Your task to perform on an android device: turn off smart reply in the gmail app Image 0: 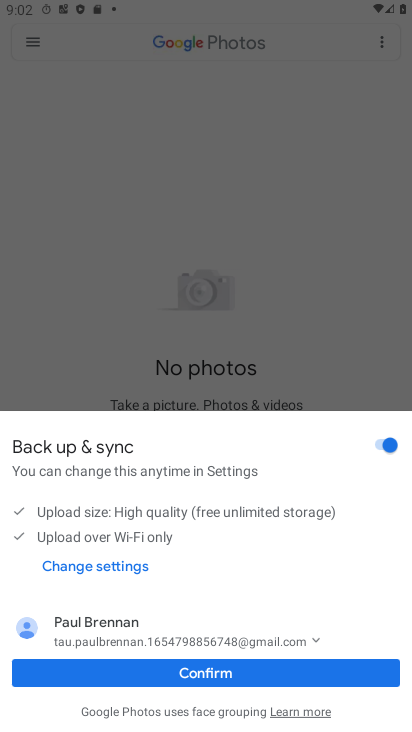
Step 0: press back button
Your task to perform on an android device: turn off smart reply in the gmail app Image 1: 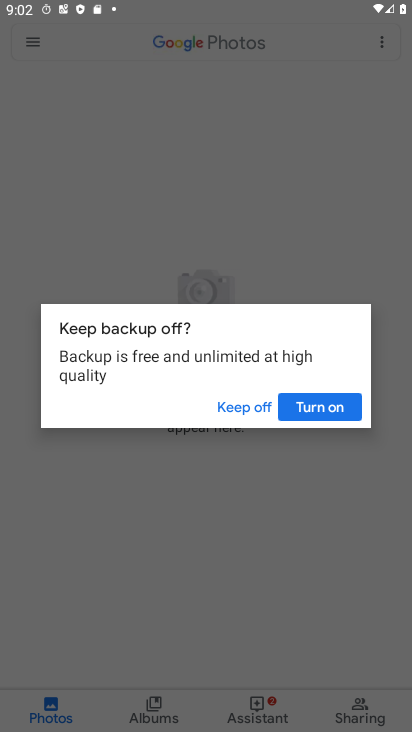
Step 1: click (89, 182)
Your task to perform on an android device: turn off smart reply in the gmail app Image 2: 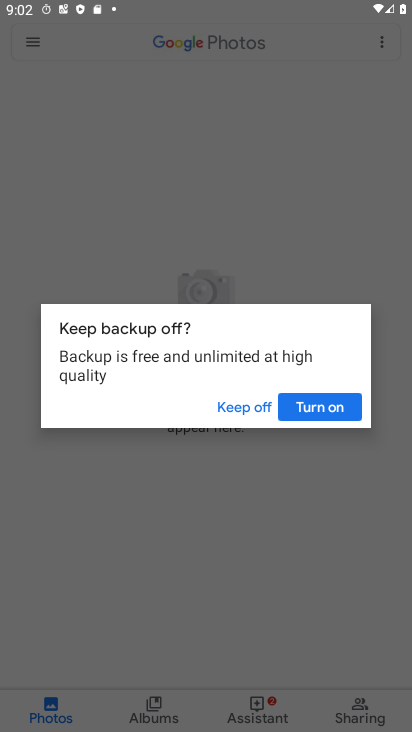
Step 2: click (89, 182)
Your task to perform on an android device: turn off smart reply in the gmail app Image 3: 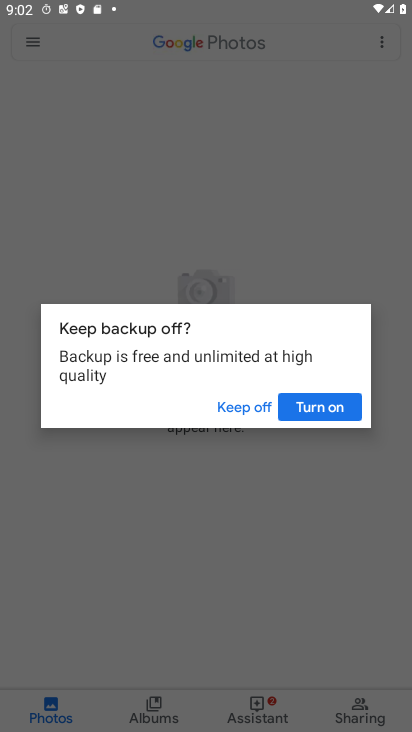
Step 3: click (89, 182)
Your task to perform on an android device: turn off smart reply in the gmail app Image 4: 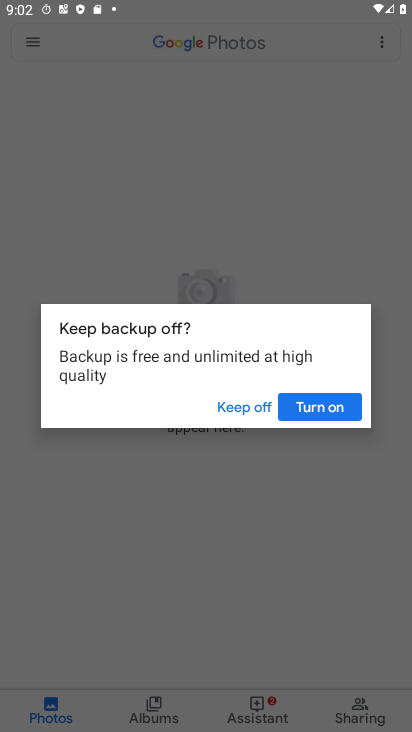
Step 4: click (92, 177)
Your task to perform on an android device: turn off smart reply in the gmail app Image 5: 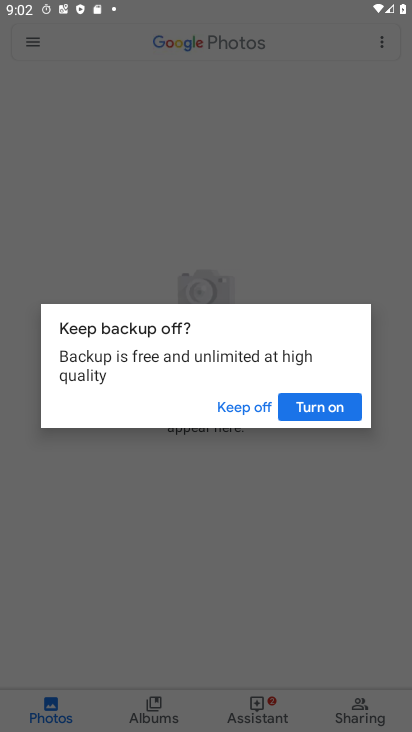
Step 5: click (92, 177)
Your task to perform on an android device: turn off smart reply in the gmail app Image 6: 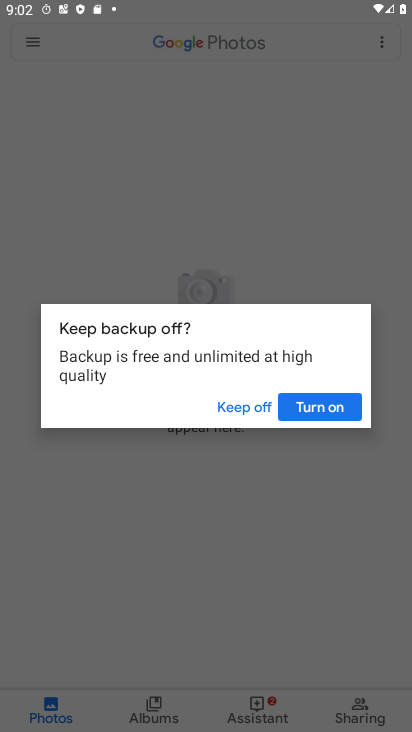
Step 6: click (156, 167)
Your task to perform on an android device: turn off smart reply in the gmail app Image 7: 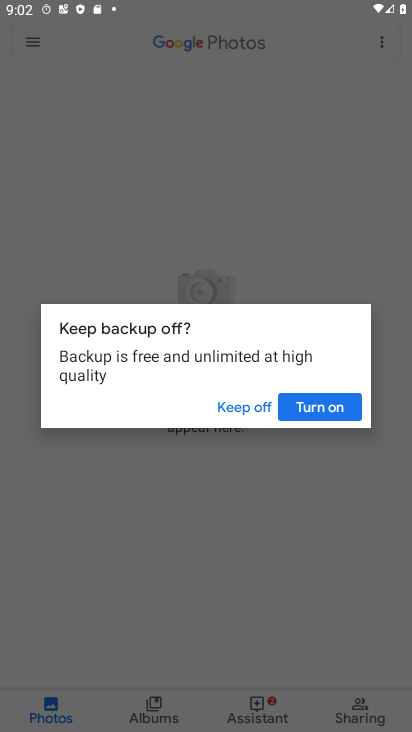
Step 7: click (136, 171)
Your task to perform on an android device: turn off smart reply in the gmail app Image 8: 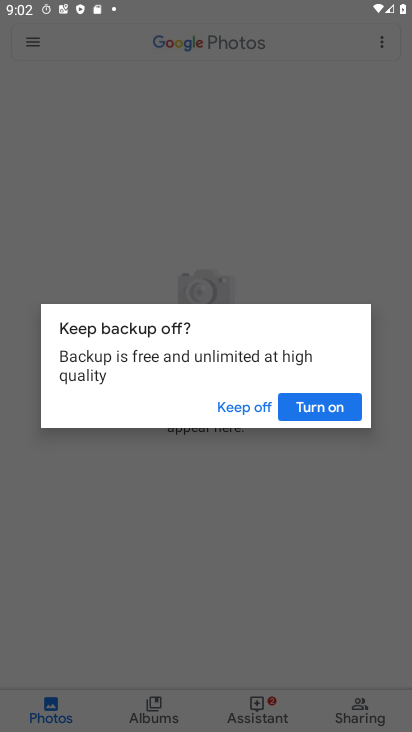
Step 8: click (237, 401)
Your task to perform on an android device: turn off smart reply in the gmail app Image 9: 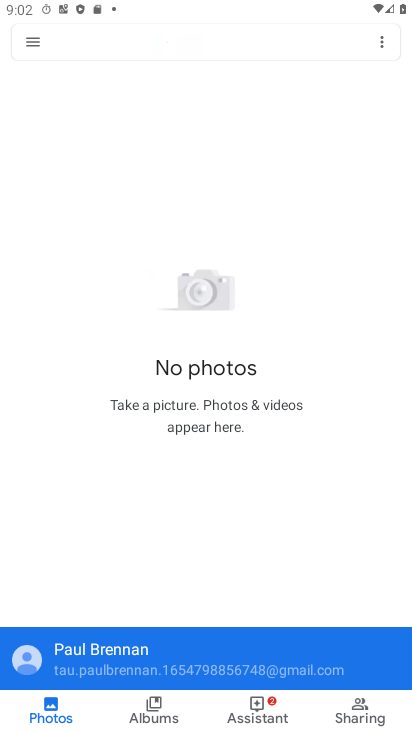
Step 9: click (31, 41)
Your task to perform on an android device: turn off smart reply in the gmail app Image 10: 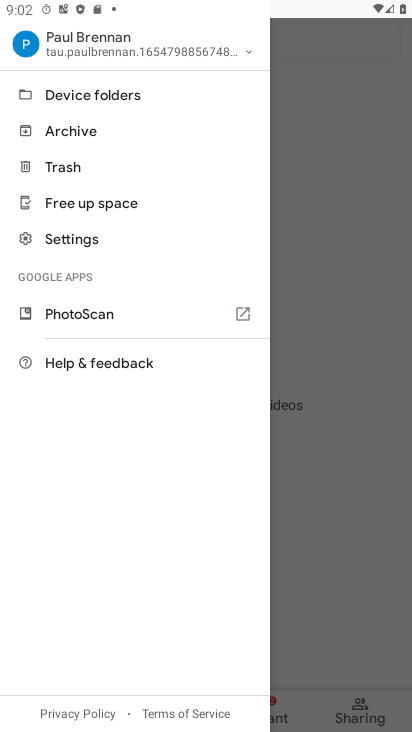
Step 10: click (76, 238)
Your task to perform on an android device: turn off smart reply in the gmail app Image 11: 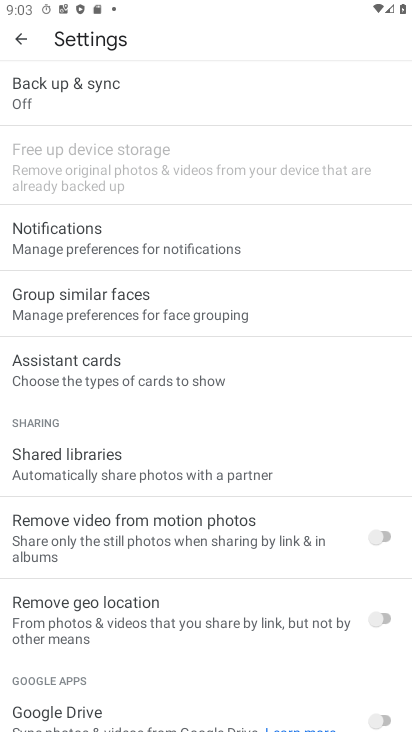
Step 11: click (70, 213)
Your task to perform on an android device: turn off smart reply in the gmail app Image 12: 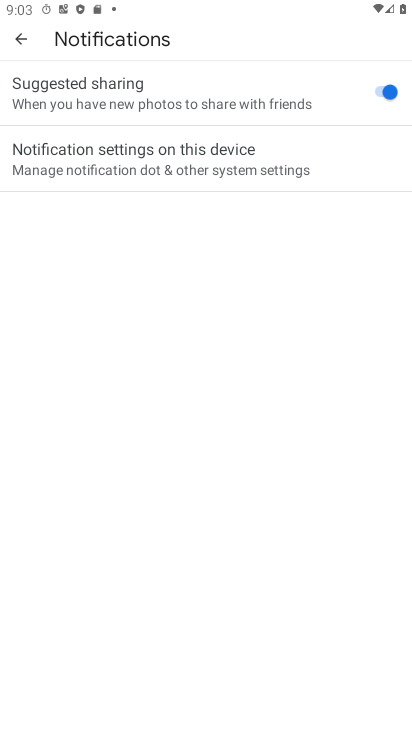
Step 12: click (21, 50)
Your task to perform on an android device: turn off smart reply in the gmail app Image 13: 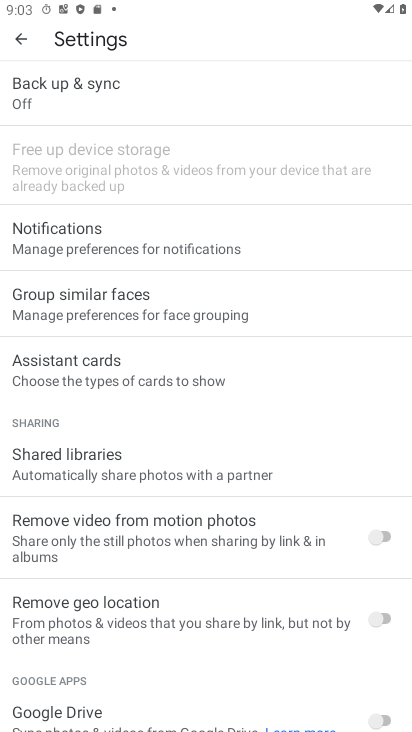
Step 13: click (19, 38)
Your task to perform on an android device: turn off smart reply in the gmail app Image 14: 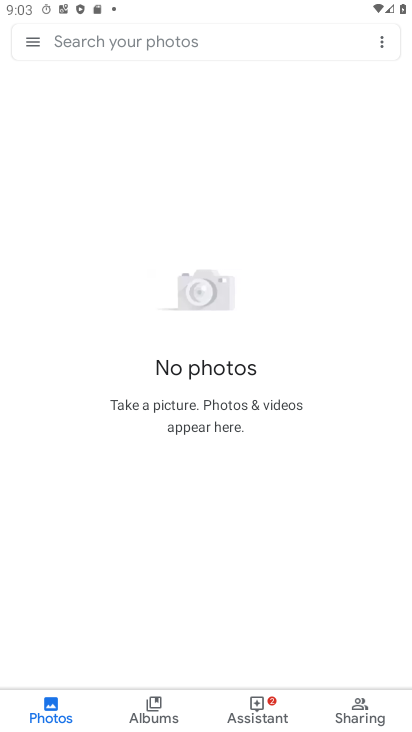
Step 14: press back button
Your task to perform on an android device: turn off smart reply in the gmail app Image 15: 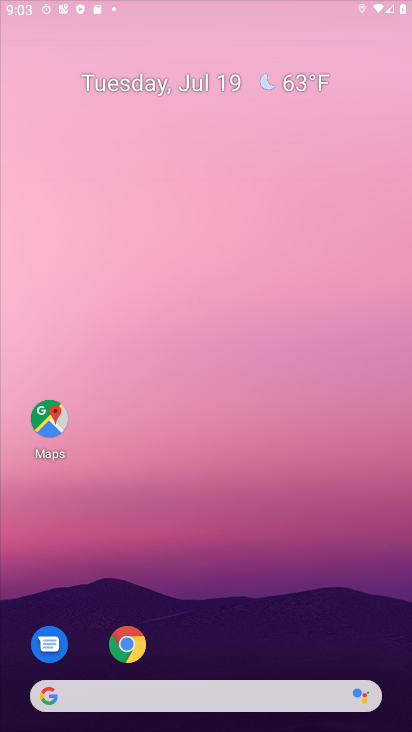
Step 15: drag from (207, 622) to (131, 161)
Your task to perform on an android device: turn off smart reply in the gmail app Image 16: 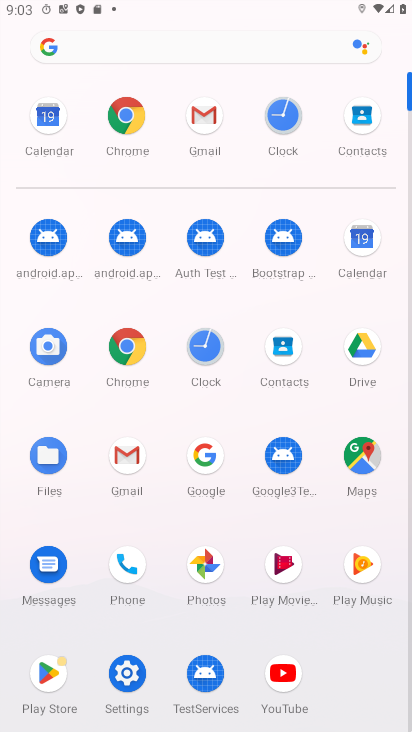
Step 16: click (113, 451)
Your task to perform on an android device: turn off smart reply in the gmail app Image 17: 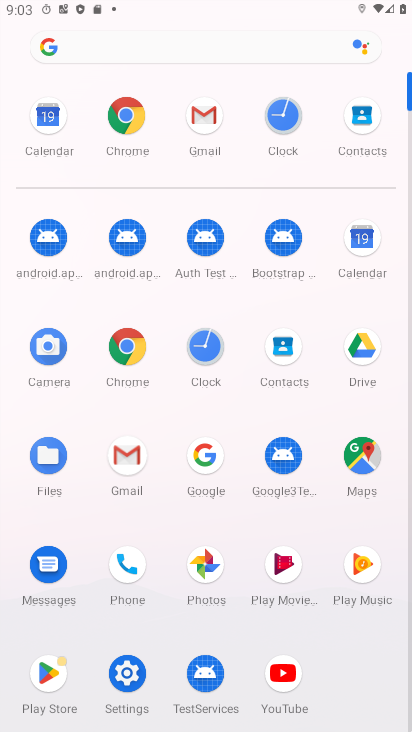
Step 17: click (124, 456)
Your task to perform on an android device: turn off smart reply in the gmail app Image 18: 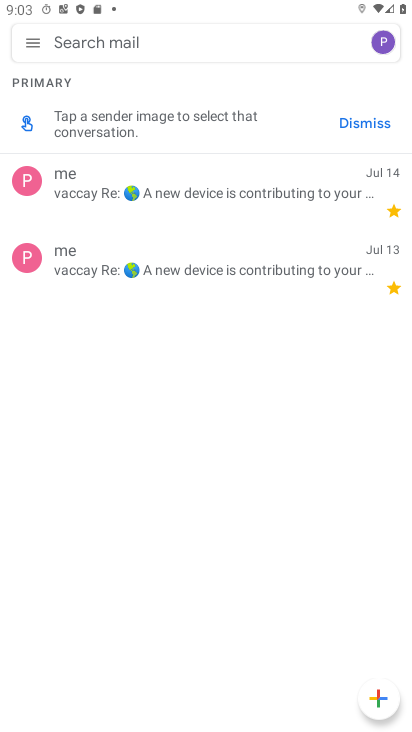
Step 18: click (32, 48)
Your task to perform on an android device: turn off smart reply in the gmail app Image 19: 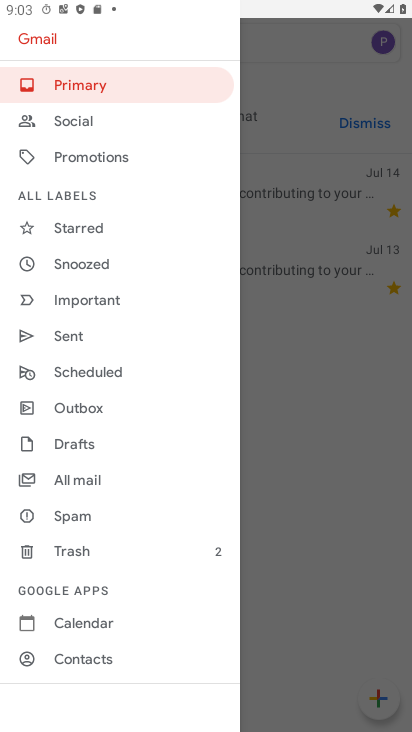
Step 19: drag from (88, 649) to (88, 234)
Your task to perform on an android device: turn off smart reply in the gmail app Image 20: 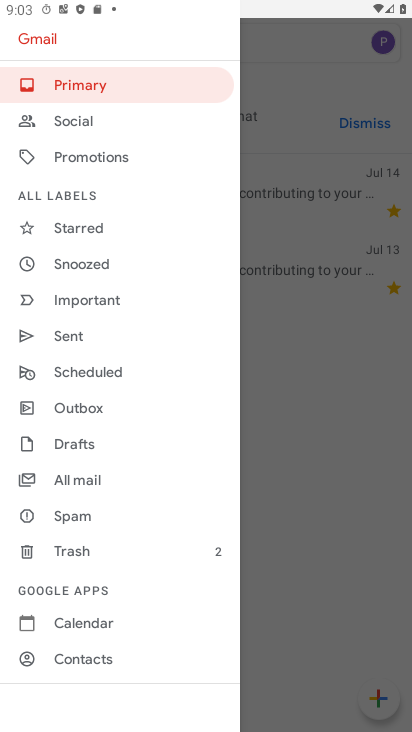
Step 20: drag from (129, 627) to (131, 251)
Your task to perform on an android device: turn off smart reply in the gmail app Image 21: 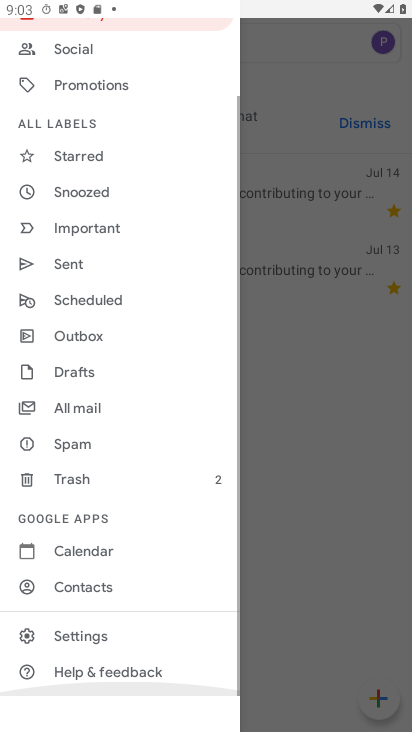
Step 21: drag from (139, 555) to (149, 139)
Your task to perform on an android device: turn off smart reply in the gmail app Image 22: 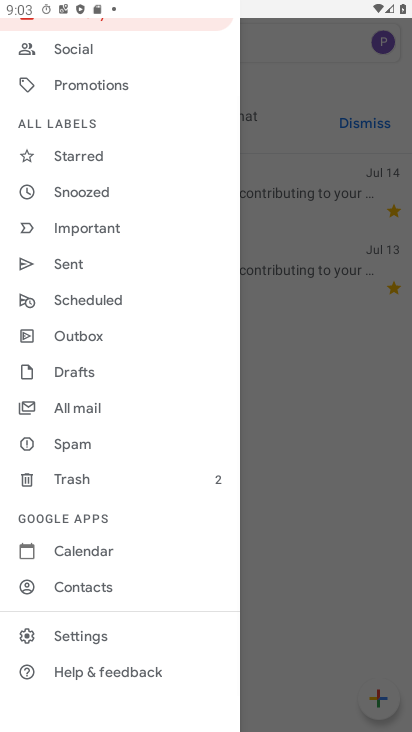
Step 22: click (89, 636)
Your task to perform on an android device: turn off smart reply in the gmail app Image 23: 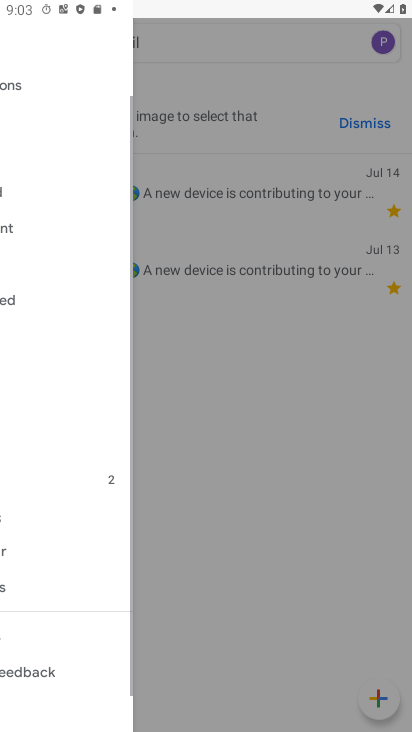
Step 23: click (90, 638)
Your task to perform on an android device: turn off smart reply in the gmail app Image 24: 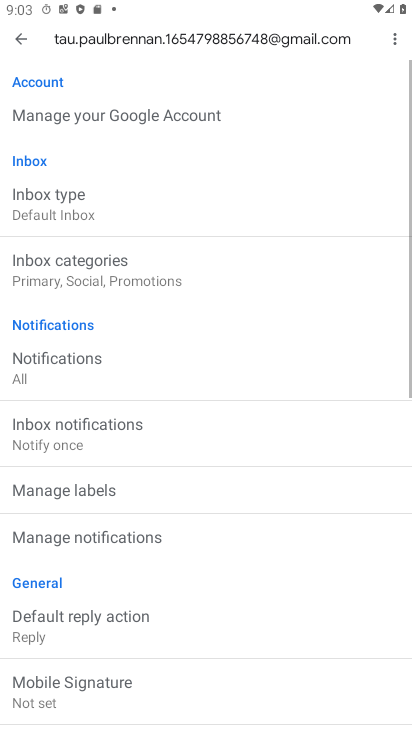
Step 24: drag from (106, 578) to (116, 150)
Your task to perform on an android device: turn off smart reply in the gmail app Image 25: 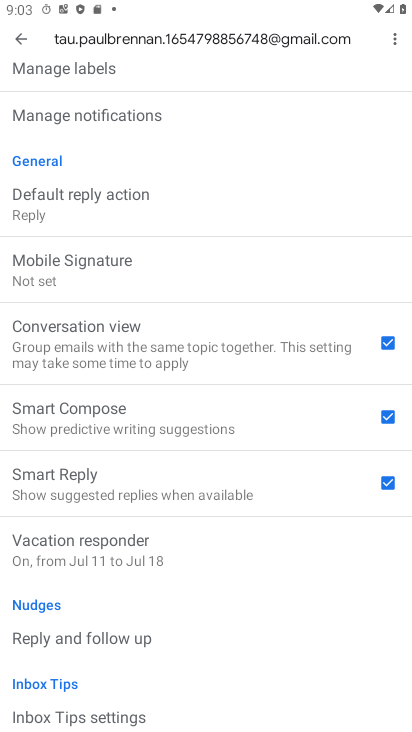
Step 25: click (382, 487)
Your task to perform on an android device: turn off smart reply in the gmail app Image 26: 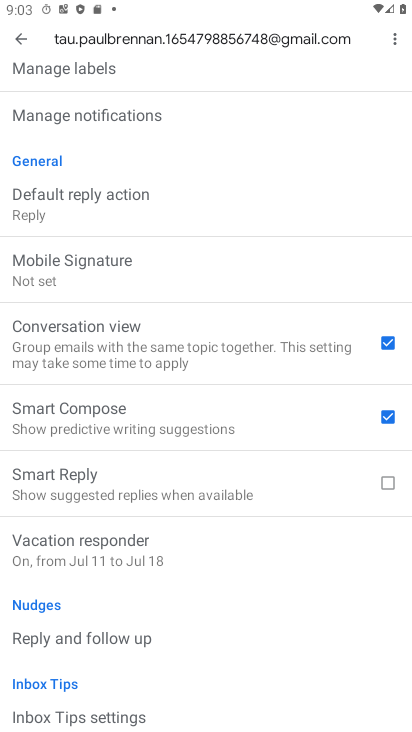
Step 26: task complete